Your task to perform on an android device: toggle data saver in the chrome app Image 0: 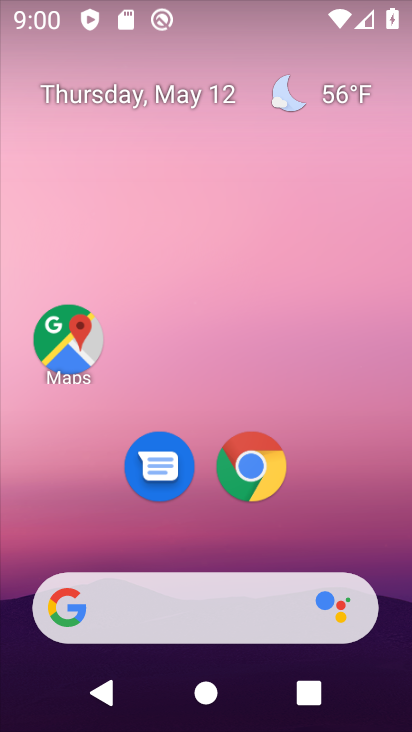
Step 0: click (265, 466)
Your task to perform on an android device: toggle data saver in the chrome app Image 1: 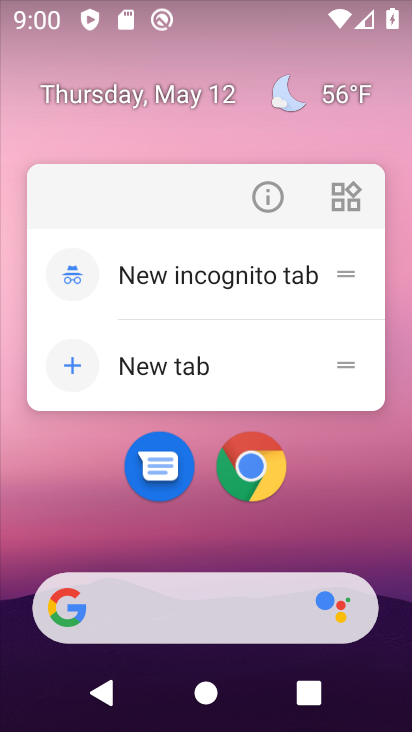
Step 1: click (257, 474)
Your task to perform on an android device: toggle data saver in the chrome app Image 2: 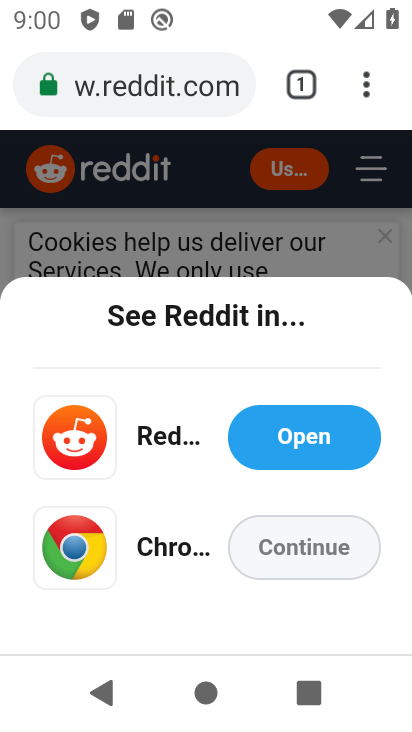
Step 2: drag from (361, 76) to (197, 512)
Your task to perform on an android device: toggle data saver in the chrome app Image 3: 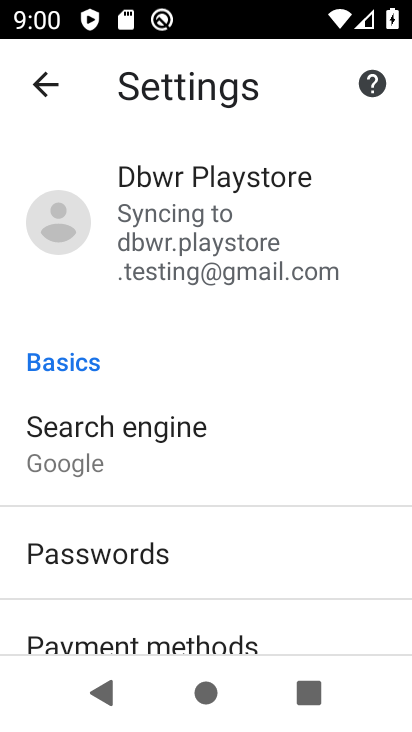
Step 3: drag from (198, 531) to (200, 67)
Your task to perform on an android device: toggle data saver in the chrome app Image 4: 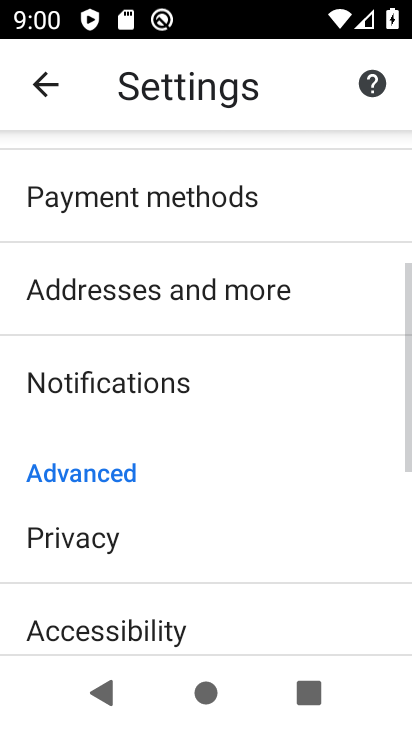
Step 4: drag from (193, 627) to (193, 204)
Your task to perform on an android device: toggle data saver in the chrome app Image 5: 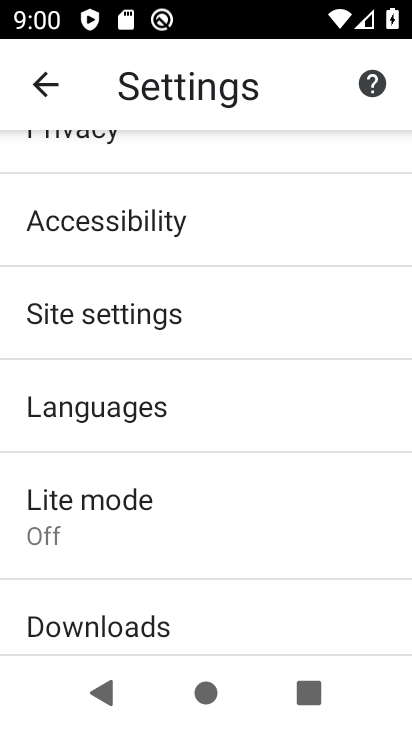
Step 5: click (144, 515)
Your task to perform on an android device: toggle data saver in the chrome app Image 6: 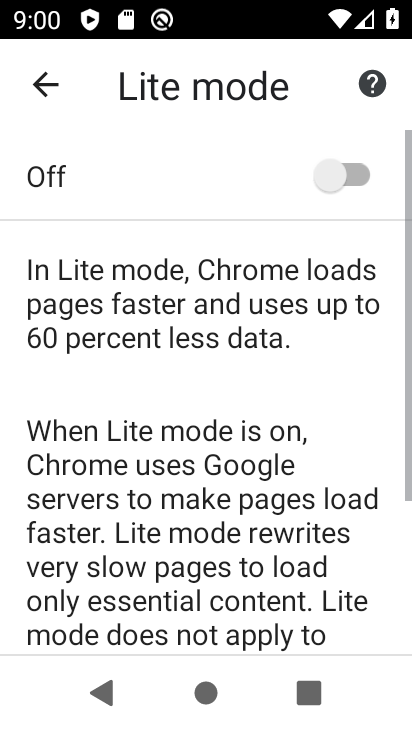
Step 6: click (341, 177)
Your task to perform on an android device: toggle data saver in the chrome app Image 7: 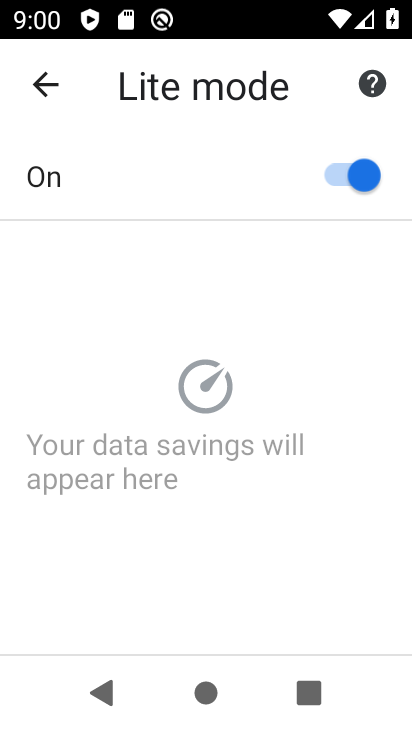
Step 7: task complete